Your task to perform on an android device: Go to Yahoo.com Image 0: 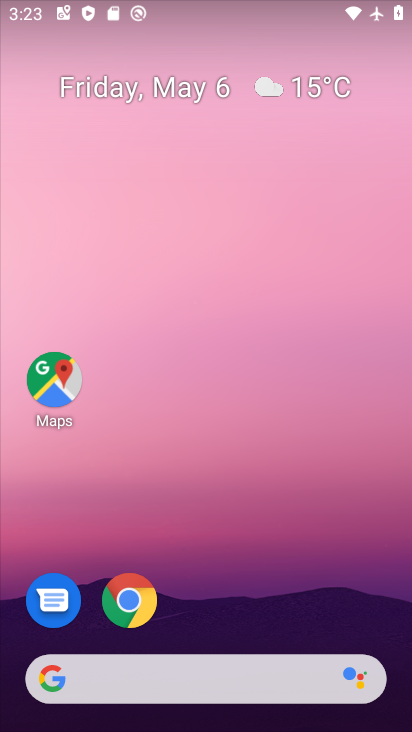
Step 0: drag from (318, 572) to (260, 16)
Your task to perform on an android device: Go to Yahoo.com Image 1: 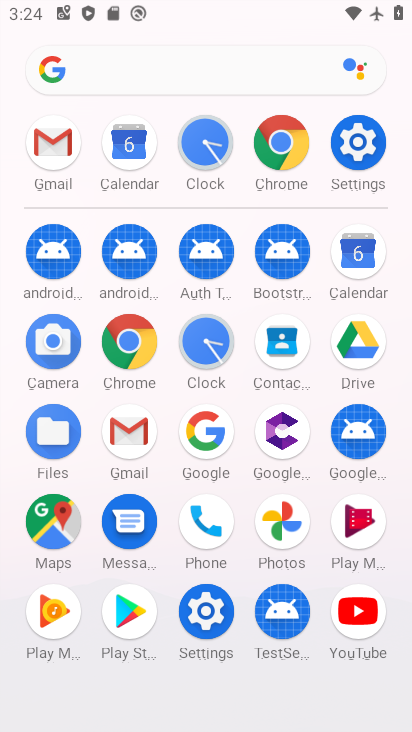
Step 1: drag from (9, 593) to (6, 282)
Your task to perform on an android device: Go to Yahoo.com Image 2: 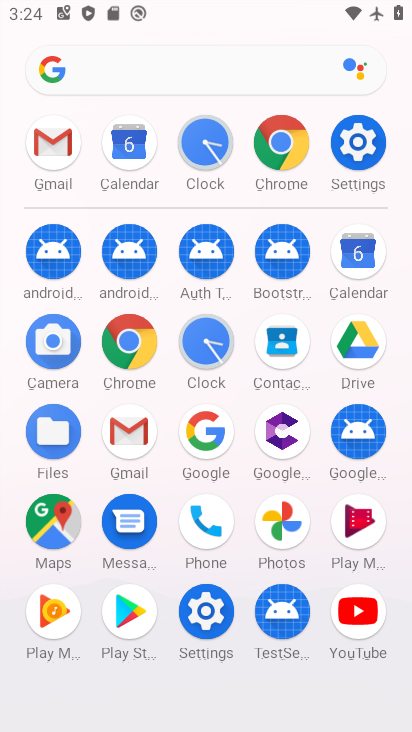
Step 2: click (126, 335)
Your task to perform on an android device: Go to Yahoo.com Image 3: 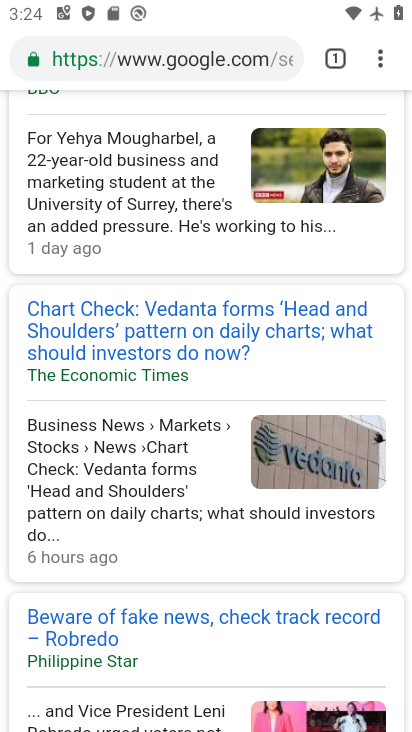
Step 3: click (166, 48)
Your task to perform on an android device: Go to Yahoo.com Image 4: 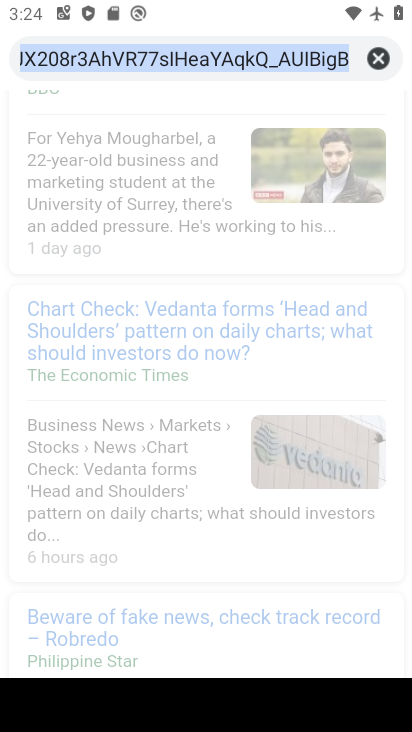
Step 4: click (377, 58)
Your task to perform on an android device: Go to Yahoo.com Image 5: 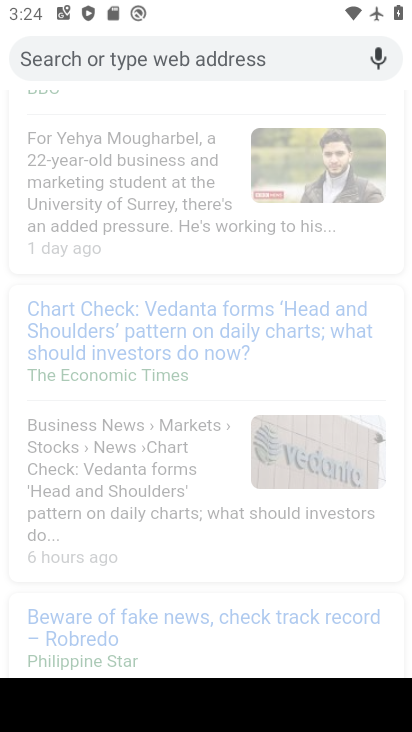
Step 5: type "Yahoo.com"
Your task to perform on an android device: Go to Yahoo.com Image 6: 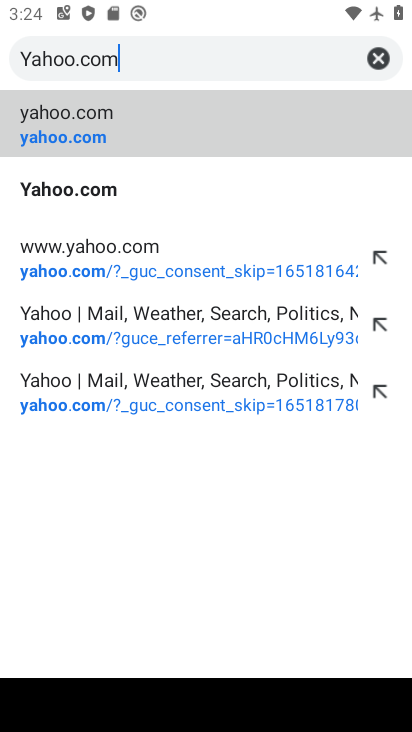
Step 6: type ""
Your task to perform on an android device: Go to Yahoo.com Image 7: 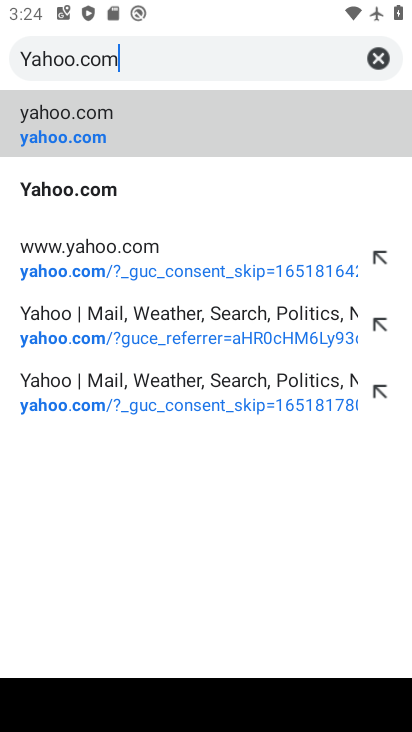
Step 7: click (105, 148)
Your task to perform on an android device: Go to Yahoo.com Image 8: 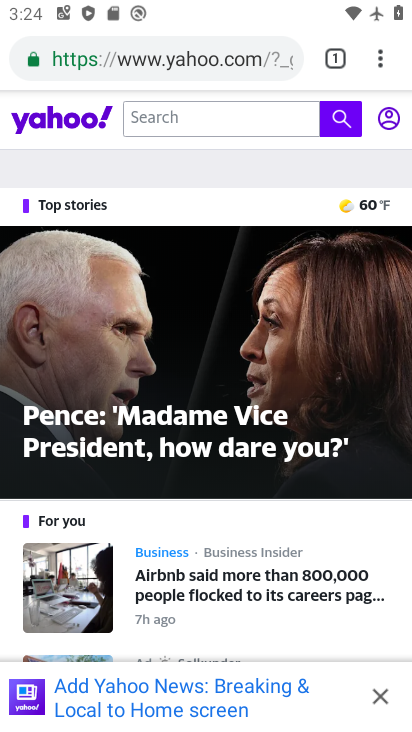
Step 8: task complete